Your task to perform on an android device: Add "bose quietcomfort 35" to the cart on ebay Image 0: 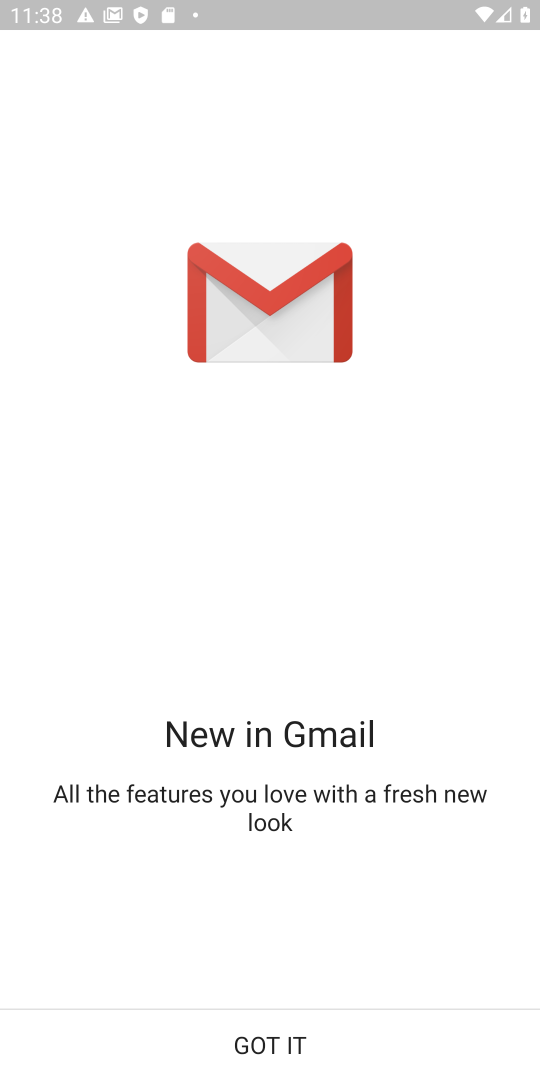
Step 0: click (228, 1052)
Your task to perform on an android device: Add "bose quietcomfort 35" to the cart on ebay Image 1: 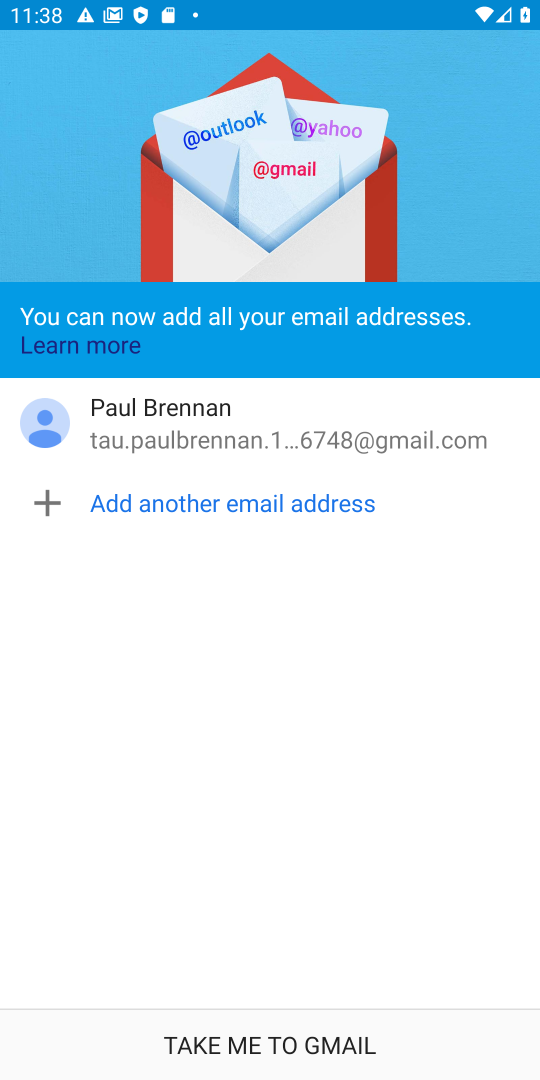
Step 1: press home button
Your task to perform on an android device: Add "bose quietcomfort 35" to the cart on ebay Image 2: 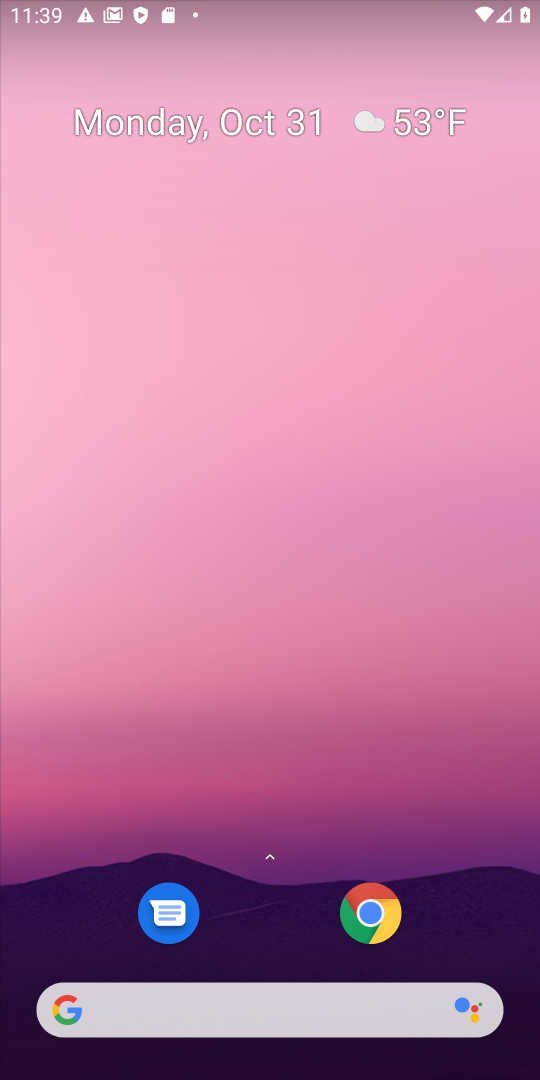
Step 2: click (211, 1014)
Your task to perform on an android device: Add "bose quietcomfort 35" to the cart on ebay Image 3: 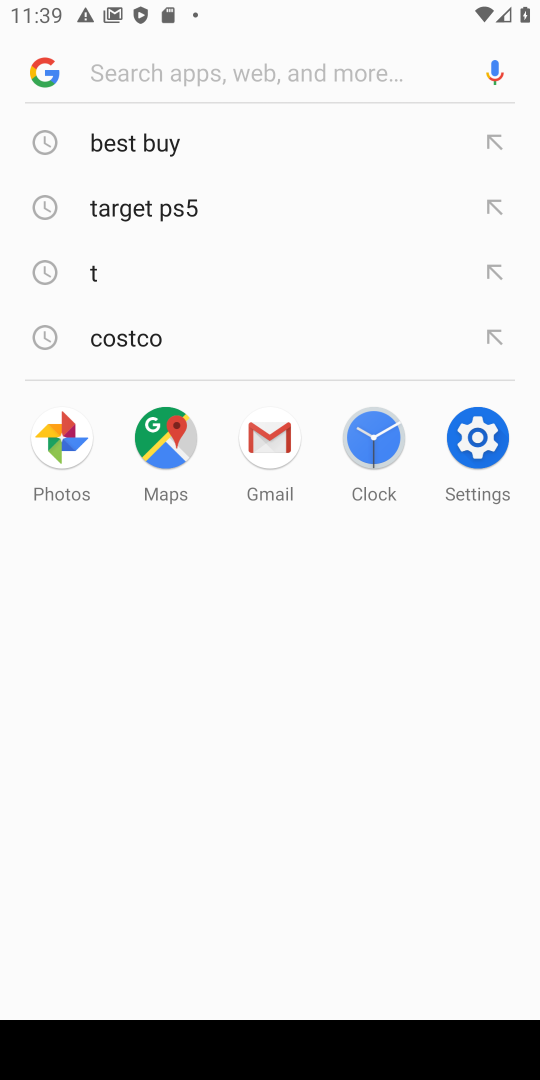
Step 3: type "ebay"
Your task to perform on an android device: Add "bose quietcomfort 35" to the cart on ebay Image 4: 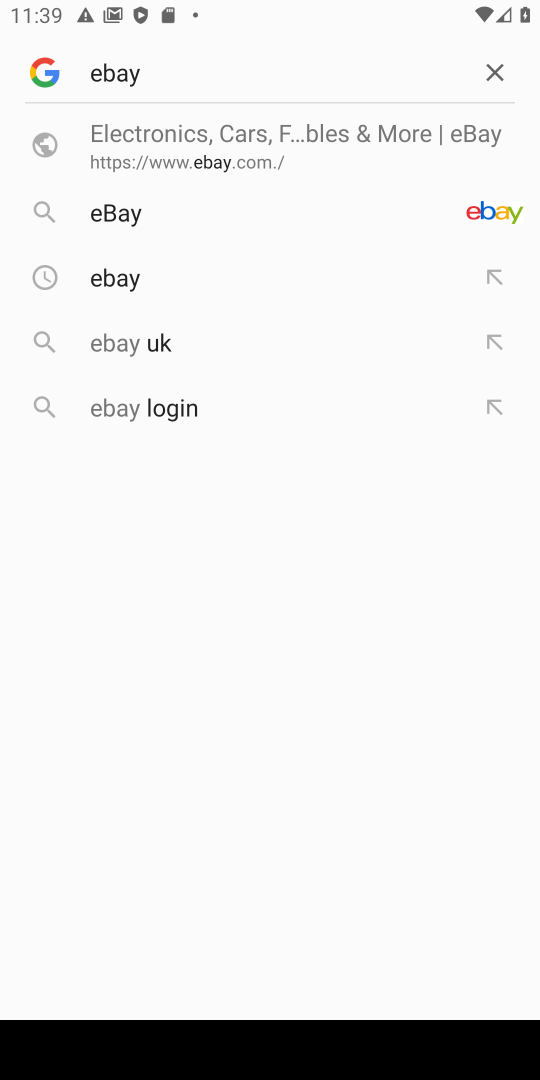
Step 4: click (250, 157)
Your task to perform on an android device: Add "bose quietcomfort 35" to the cart on ebay Image 5: 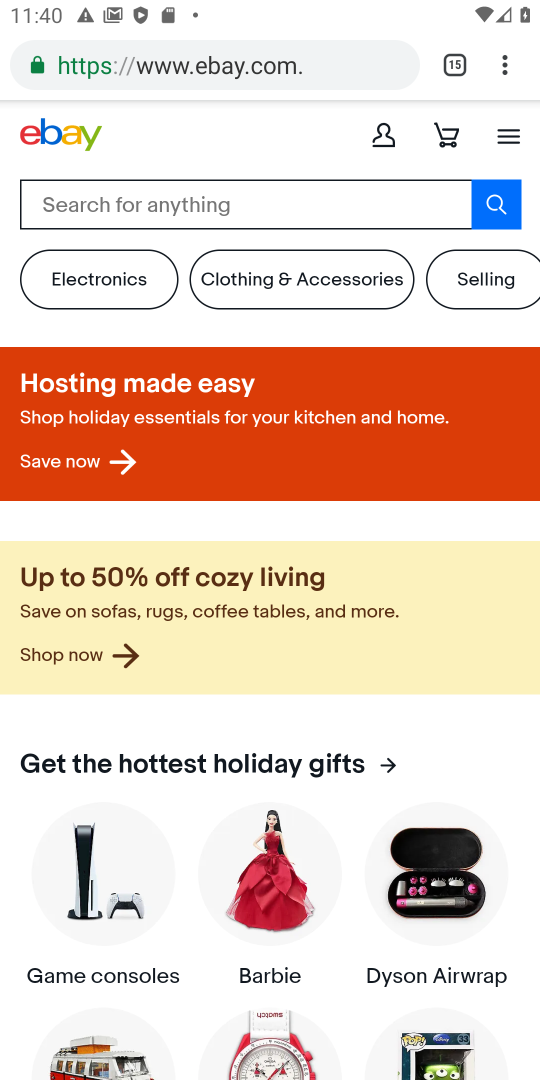
Step 5: click (109, 211)
Your task to perform on an android device: Add "bose quietcomfort 35" to the cart on ebay Image 6: 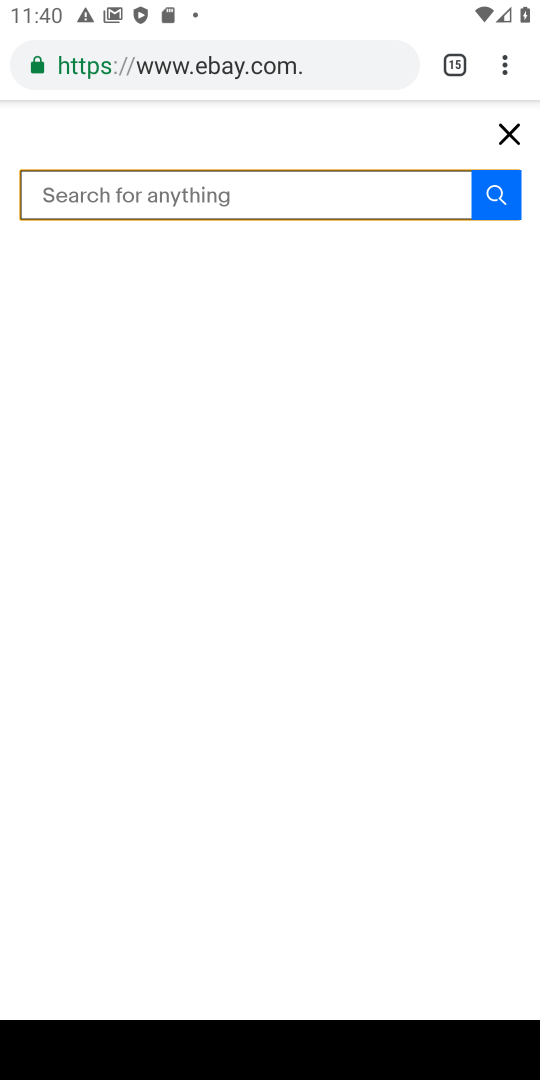
Step 6: type "base quitefort"
Your task to perform on an android device: Add "bose quietcomfort 35" to the cart on ebay Image 7: 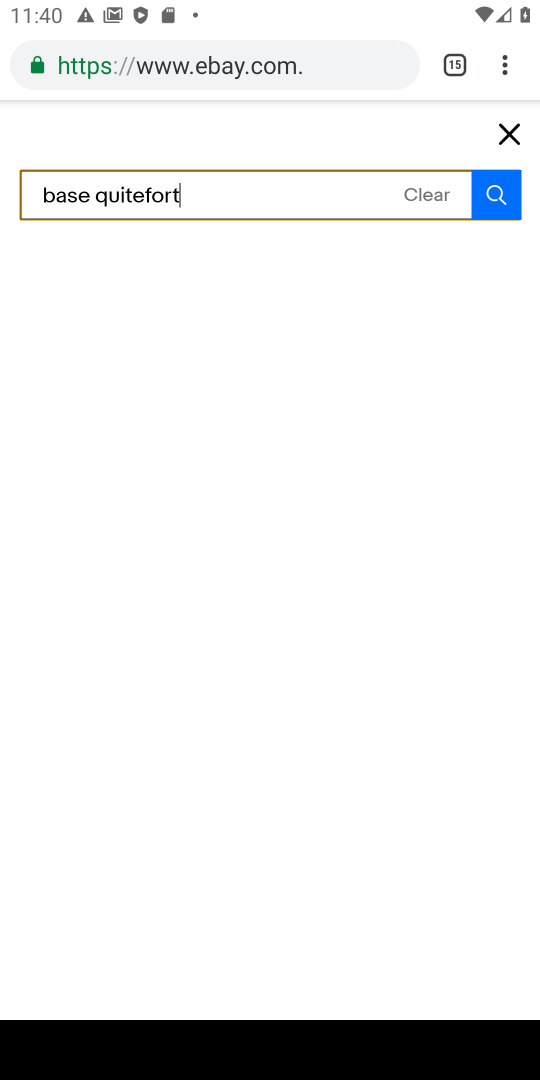
Step 7: click (486, 191)
Your task to perform on an android device: Add "bose quietcomfort 35" to the cart on ebay Image 8: 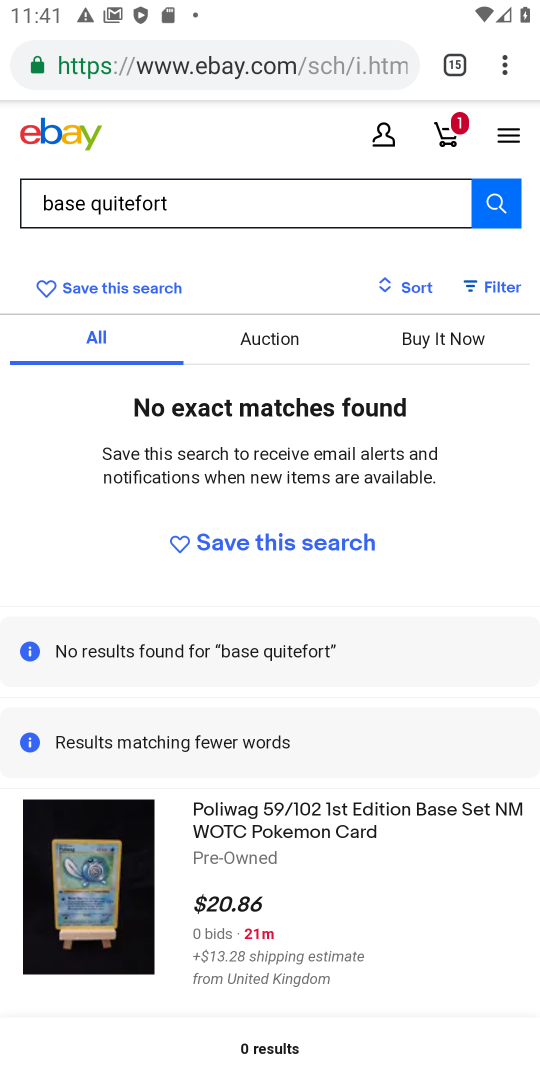
Step 8: task complete